Your task to perform on an android device: toggle location history Image 0: 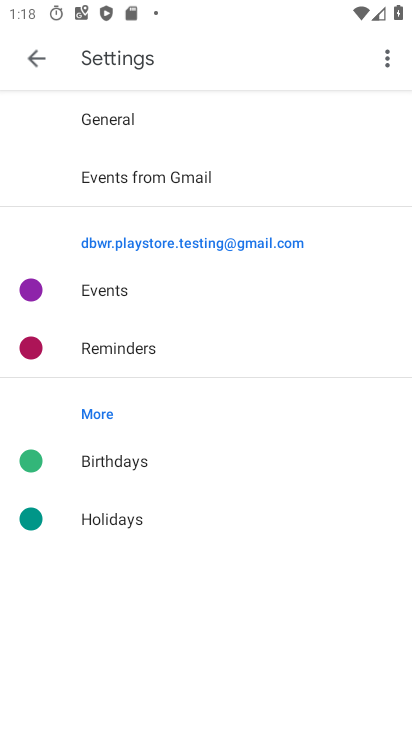
Step 0: press home button
Your task to perform on an android device: toggle location history Image 1: 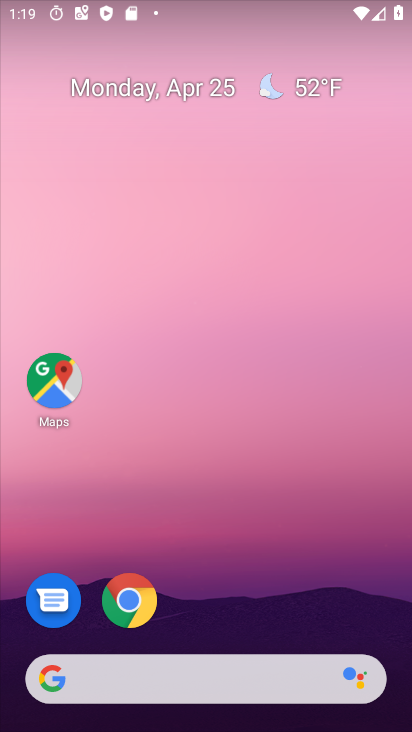
Step 1: drag from (163, 673) to (317, 155)
Your task to perform on an android device: toggle location history Image 2: 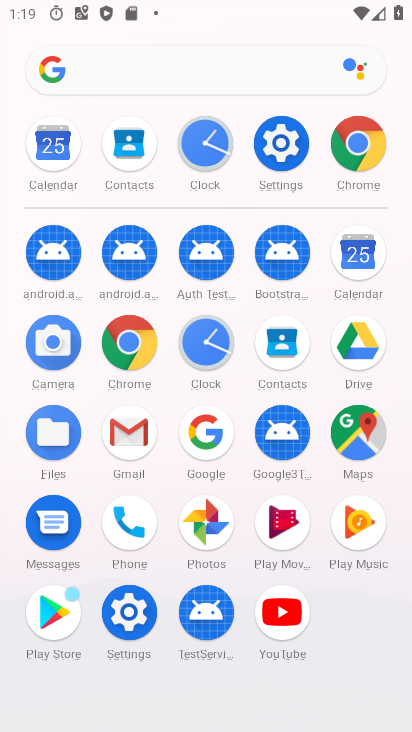
Step 2: click (275, 156)
Your task to perform on an android device: toggle location history Image 3: 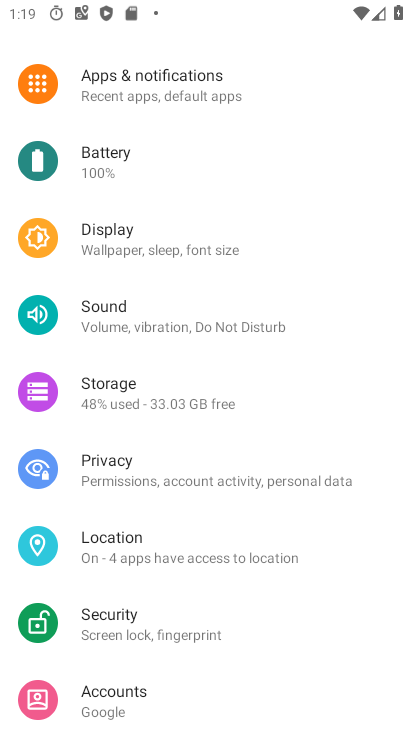
Step 3: click (145, 544)
Your task to perform on an android device: toggle location history Image 4: 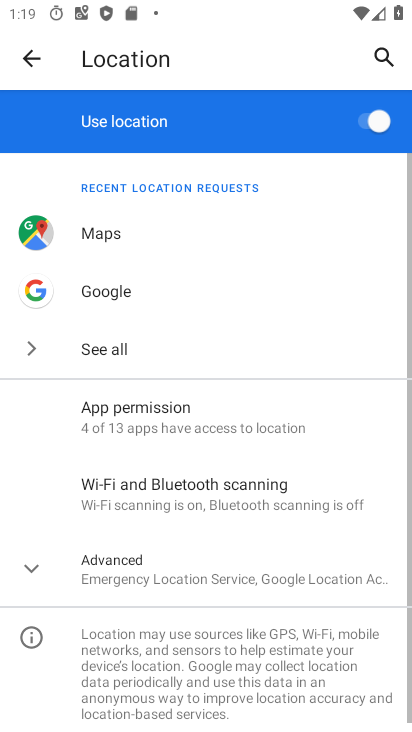
Step 4: click (150, 573)
Your task to perform on an android device: toggle location history Image 5: 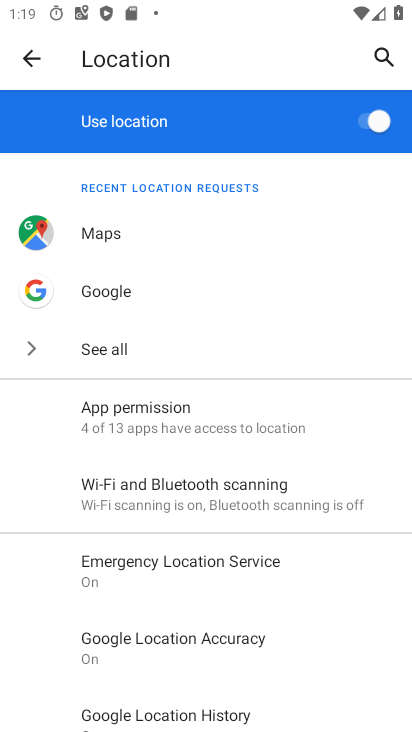
Step 5: drag from (171, 582) to (352, 310)
Your task to perform on an android device: toggle location history Image 6: 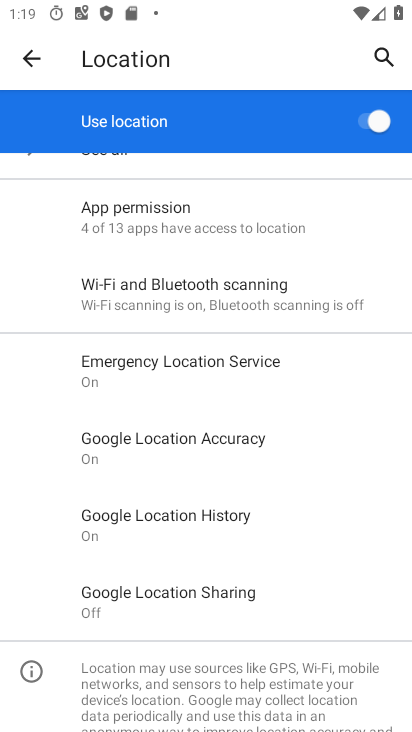
Step 6: click (163, 521)
Your task to perform on an android device: toggle location history Image 7: 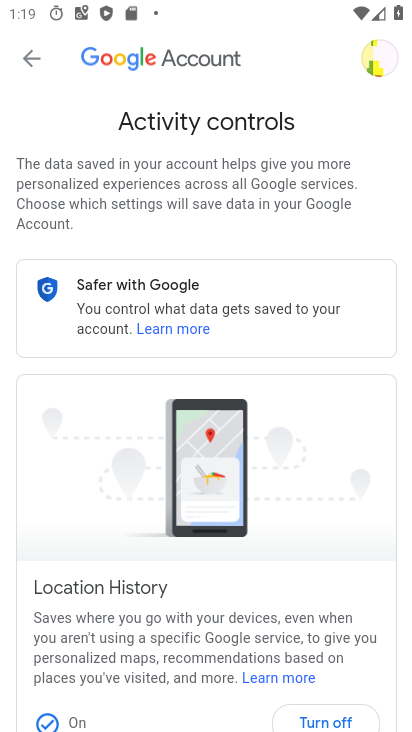
Step 7: drag from (169, 651) to (369, 12)
Your task to perform on an android device: toggle location history Image 8: 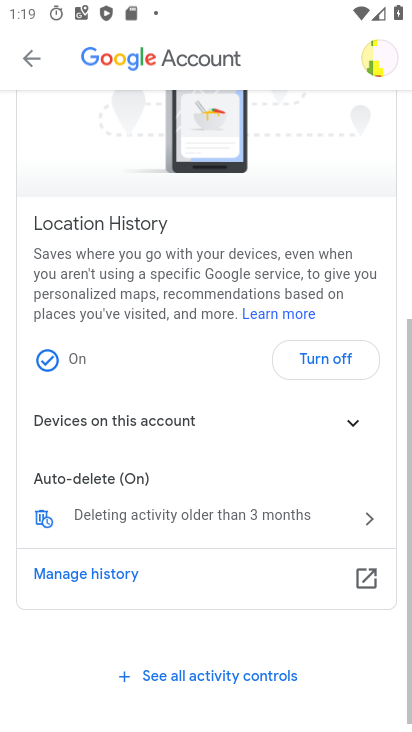
Step 8: click (332, 352)
Your task to perform on an android device: toggle location history Image 9: 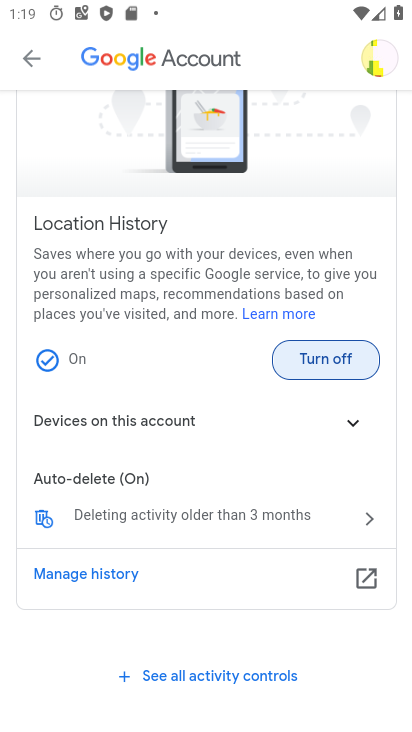
Step 9: click (327, 364)
Your task to perform on an android device: toggle location history Image 10: 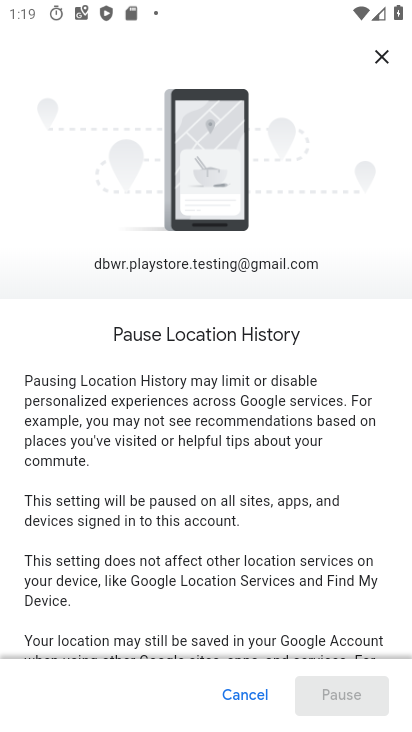
Step 10: drag from (164, 553) to (336, 40)
Your task to perform on an android device: toggle location history Image 11: 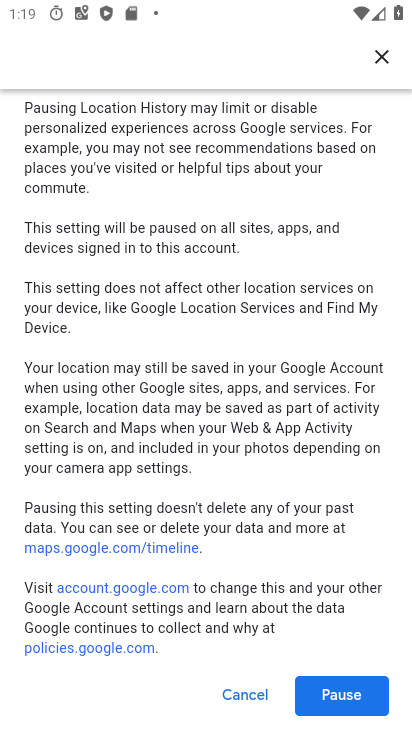
Step 11: click (332, 695)
Your task to perform on an android device: toggle location history Image 12: 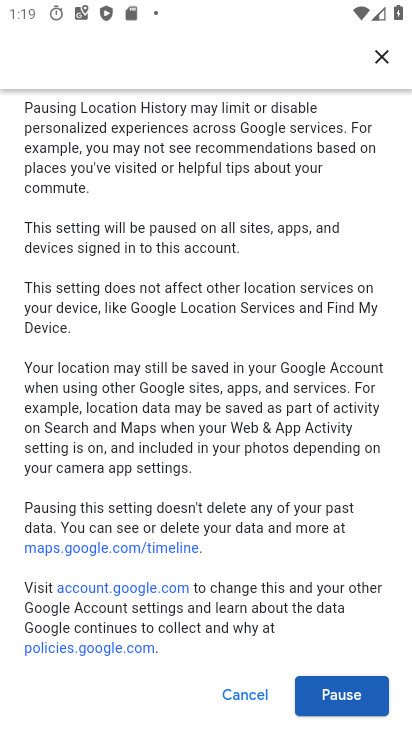
Step 12: click (337, 695)
Your task to perform on an android device: toggle location history Image 13: 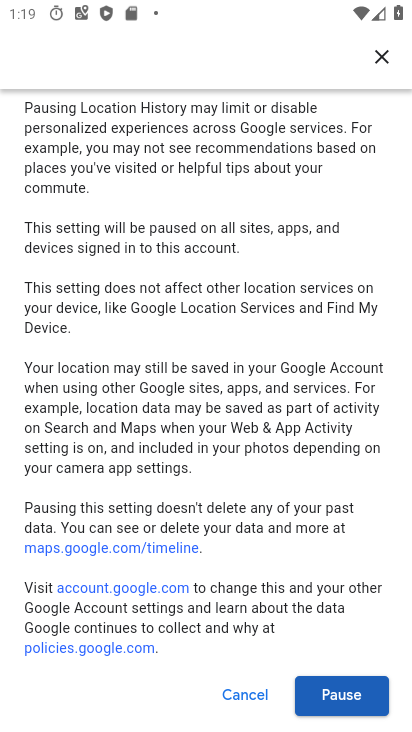
Step 13: click (358, 697)
Your task to perform on an android device: toggle location history Image 14: 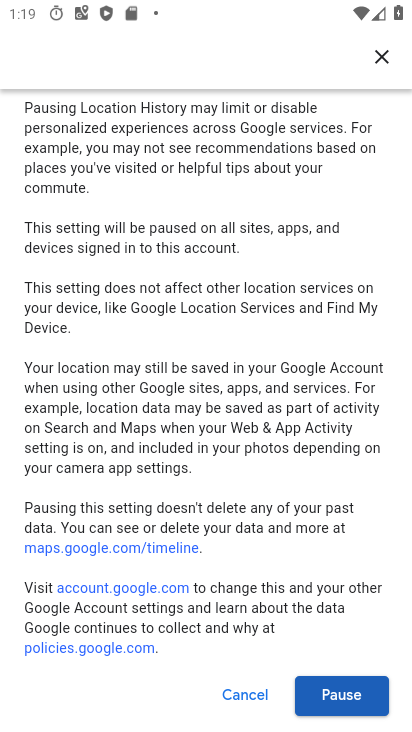
Step 14: click (339, 695)
Your task to perform on an android device: toggle location history Image 15: 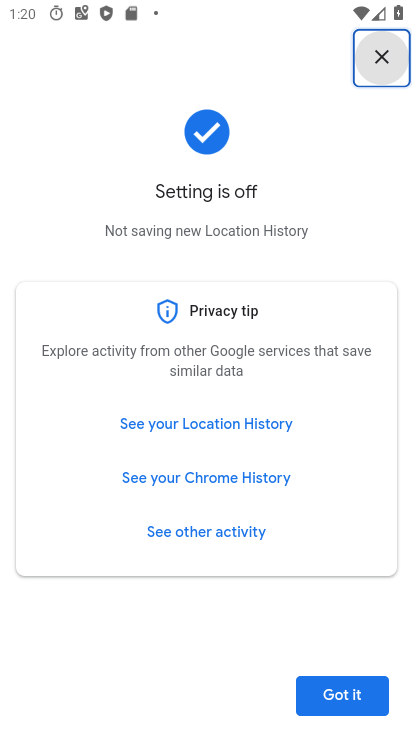
Step 15: task complete